Your task to perform on an android device: Open Maps and search for coffee Image 0: 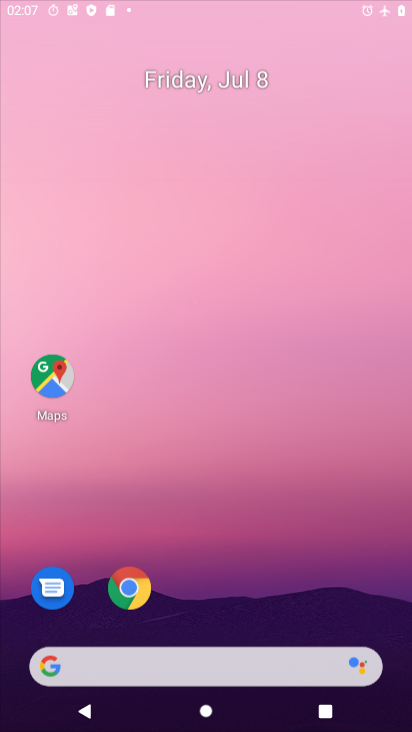
Step 0: click (182, 118)
Your task to perform on an android device: Open Maps and search for coffee Image 1: 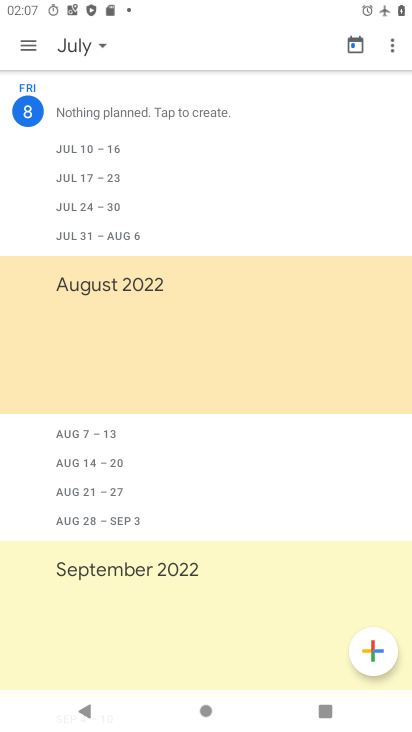
Step 1: press home button
Your task to perform on an android device: Open Maps and search for coffee Image 2: 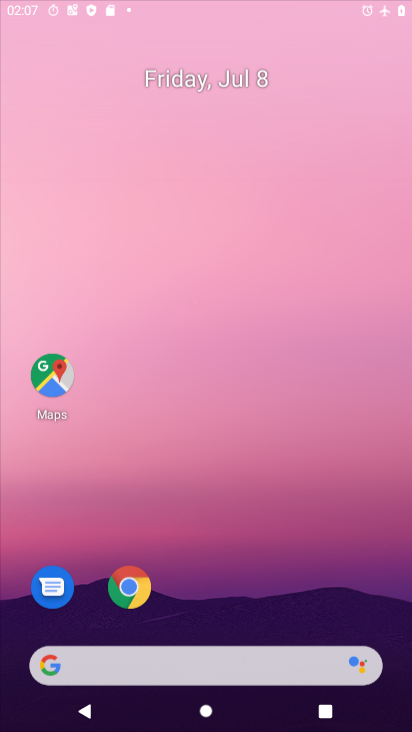
Step 2: drag from (237, 660) to (233, 158)
Your task to perform on an android device: Open Maps and search for coffee Image 3: 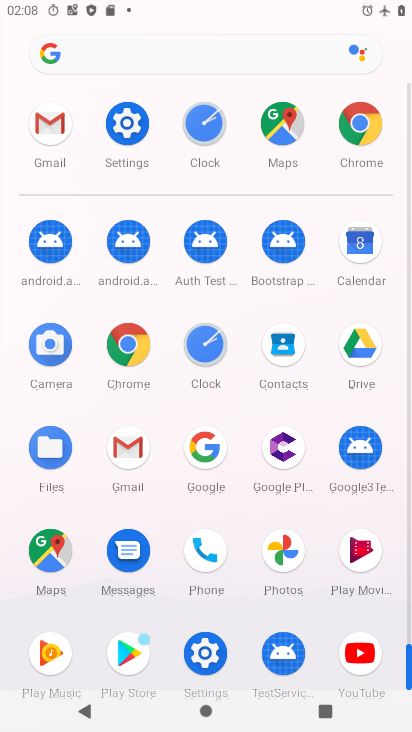
Step 3: click (43, 555)
Your task to perform on an android device: Open Maps and search for coffee Image 4: 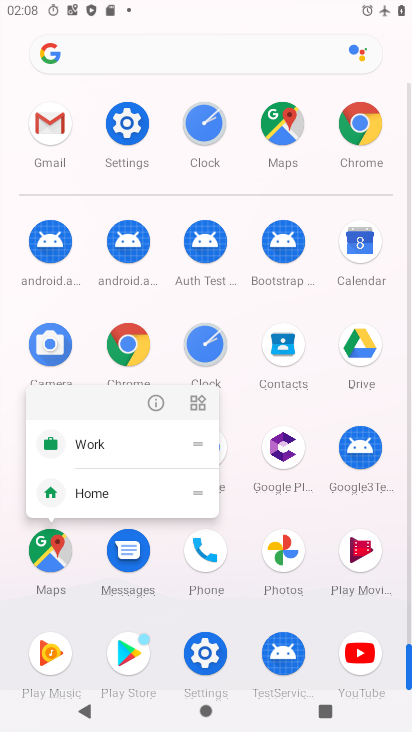
Step 4: click (157, 402)
Your task to perform on an android device: Open Maps and search for coffee Image 5: 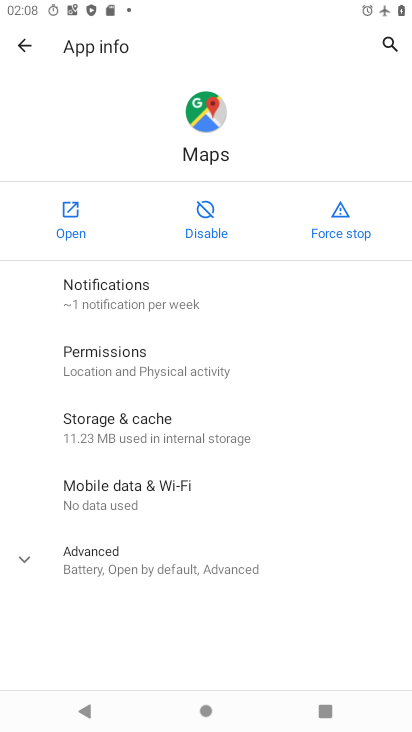
Step 5: click (68, 208)
Your task to perform on an android device: Open Maps and search for coffee Image 6: 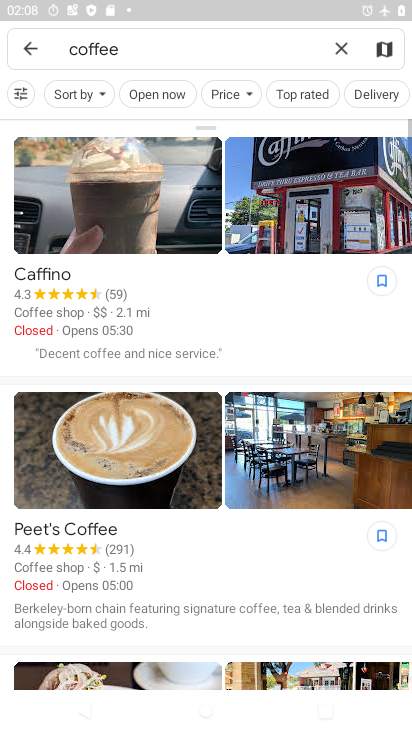
Step 6: drag from (220, 159) to (219, 609)
Your task to perform on an android device: Open Maps and search for coffee Image 7: 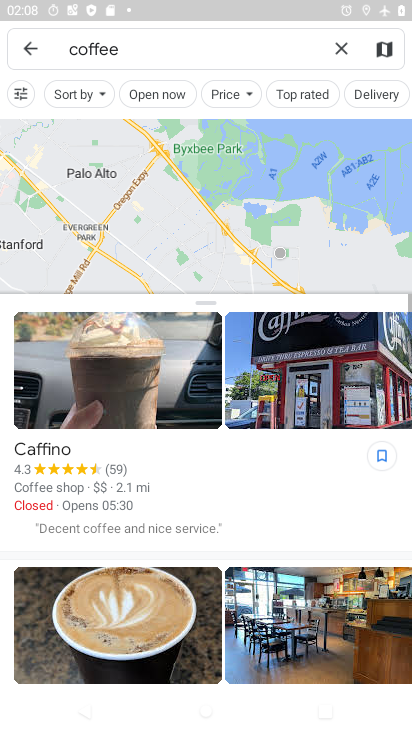
Step 7: click (175, 45)
Your task to perform on an android device: Open Maps and search for coffee Image 8: 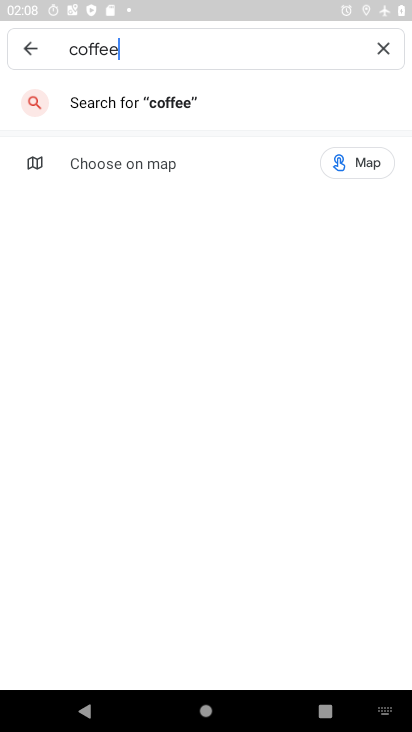
Step 8: task complete